Your task to perform on an android device: Clear all items from cart on walmart.com. Image 0: 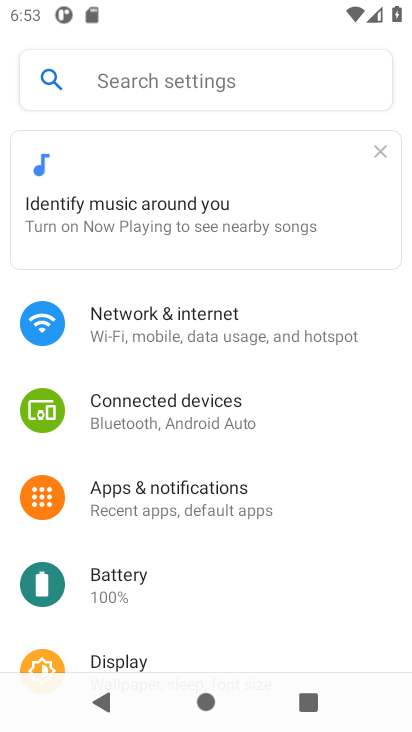
Step 0: press home button
Your task to perform on an android device: Clear all items from cart on walmart.com. Image 1: 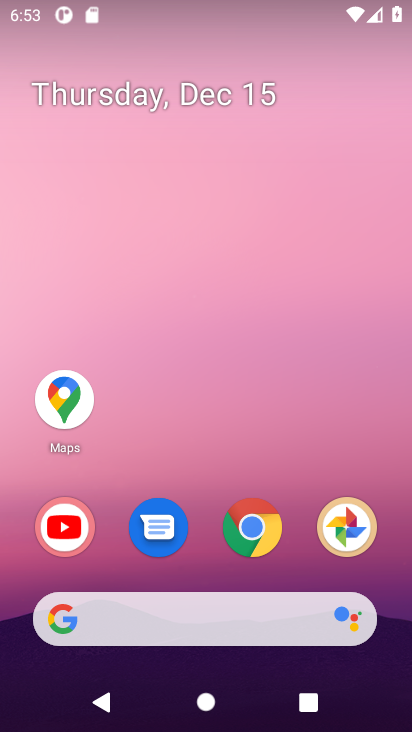
Step 1: click (258, 532)
Your task to perform on an android device: Clear all items from cart on walmart.com. Image 2: 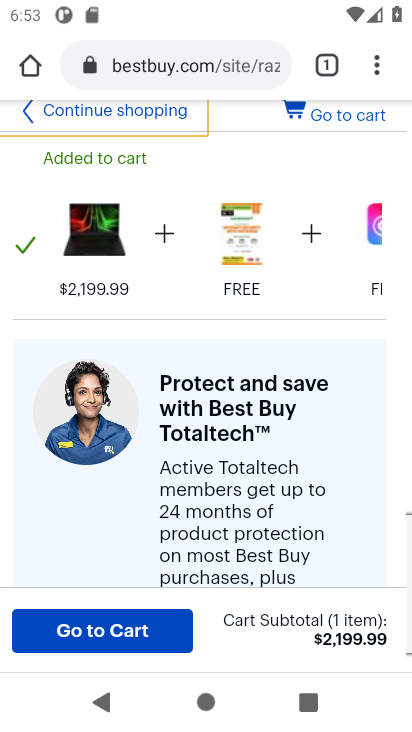
Step 2: click (116, 60)
Your task to perform on an android device: Clear all items from cart on walmart.com. Image 3: 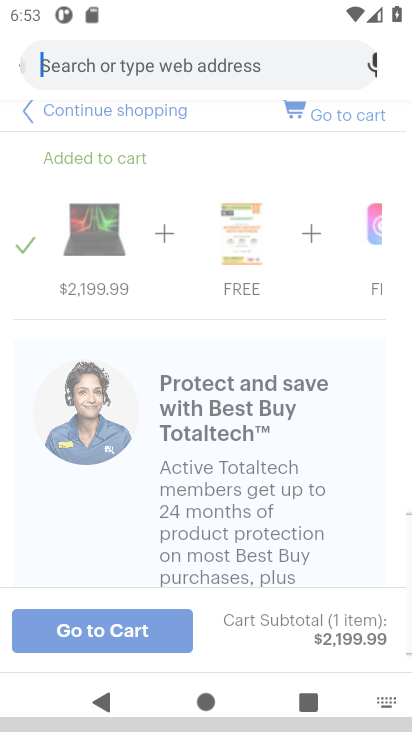
Step 3: click (116, 60)
Your task to perform on an android device: Clear all items from cart on walmart.com. Image 4: 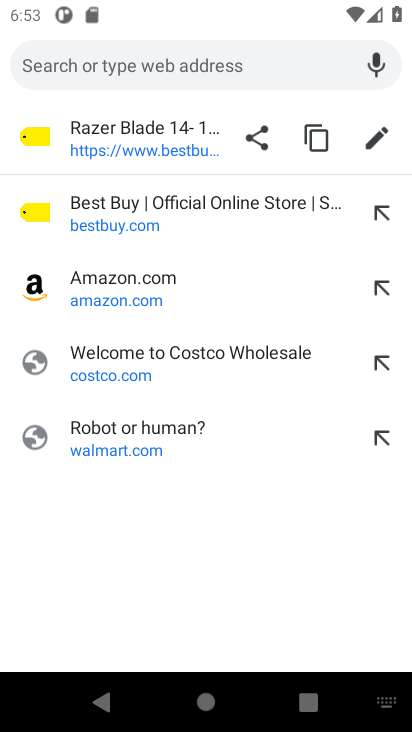
Step 4: type "walmart"
Your task to perform on an android device: Clear all items from cart on walmart.com. Image 5: 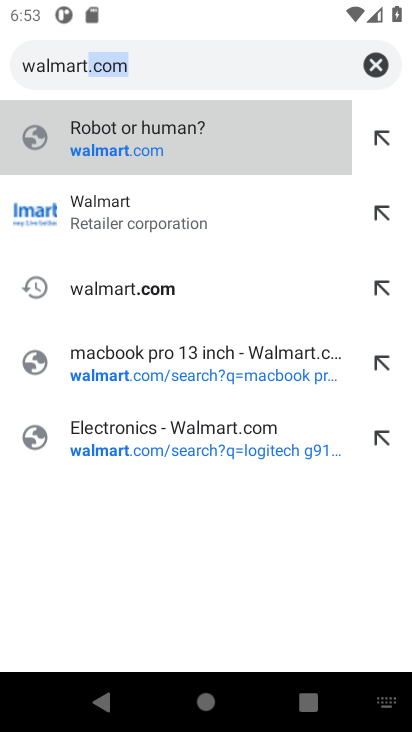
Step 5: click (83, 207)
Your task to perform on an android device: Clear all items from cart on walmart.com. Image 6: 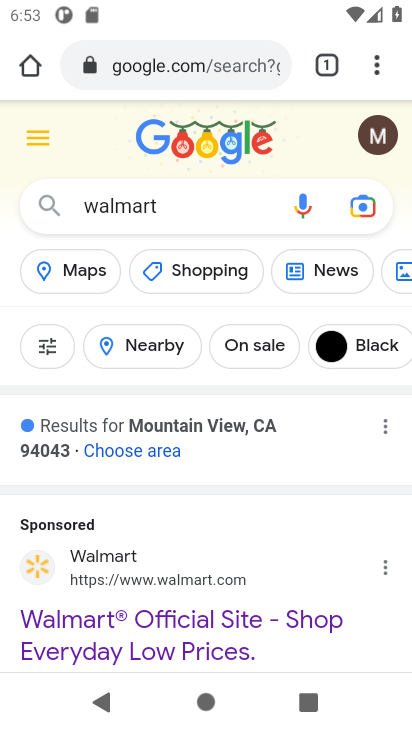
Step 6: click (79, 655)
Your task to perform on an android device: Clear all items from cart on walmart.com. Image 7: 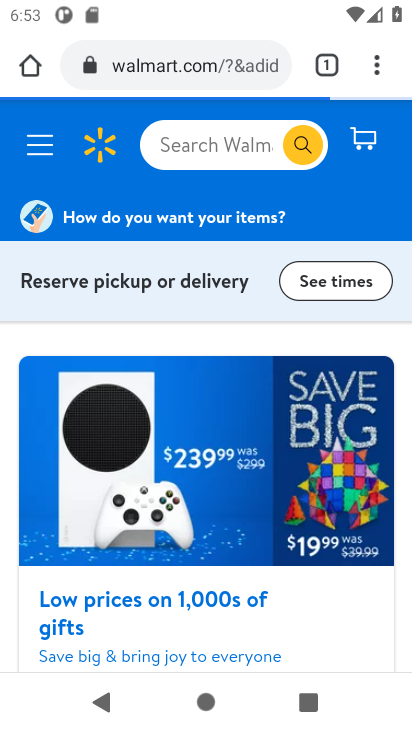
Step 7: click (190, 139)
Your task to perform on an android device: Clear all items from cart on walmart.com. Image 8: 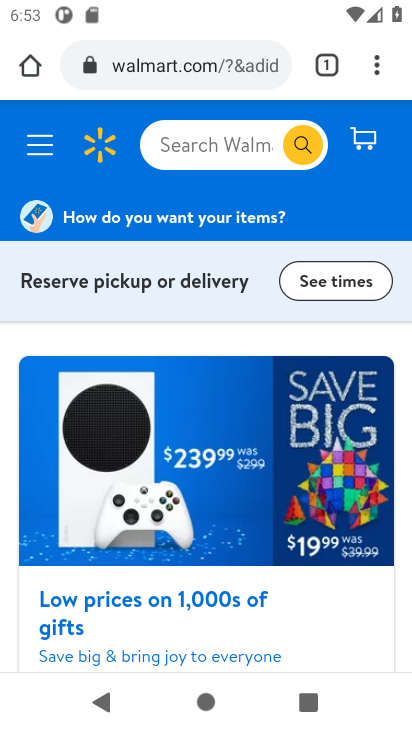
Step 8: click (355, 131)
Your task to perform on an android device: Clear all items from cart on walmart.com. Image 9: 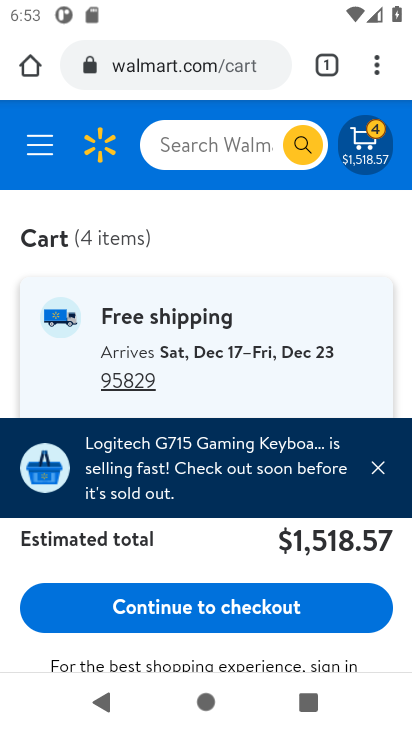
Step 9: click (373, 466)
Your task to perform on an android device: Clear all items from cart on walmart.com. Image 10: 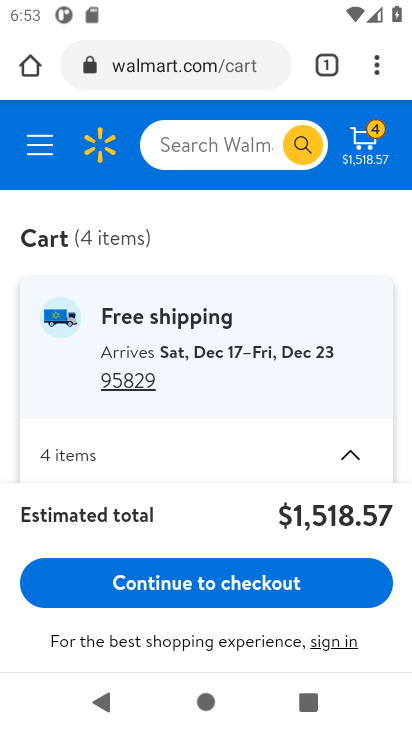
Step 10: drag from (79, 449) to (94, 268)
Your task to perform on an android device: Clear all items from cart on walmart.com. Image 11: 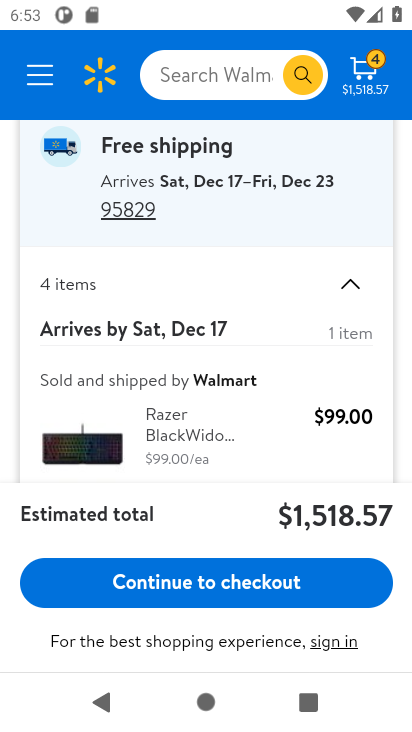
Step 11: drag from (277, 444) to (280, 233)
Your task to perform on an android device: Clear all items from cart on walmart.com. Image 12: 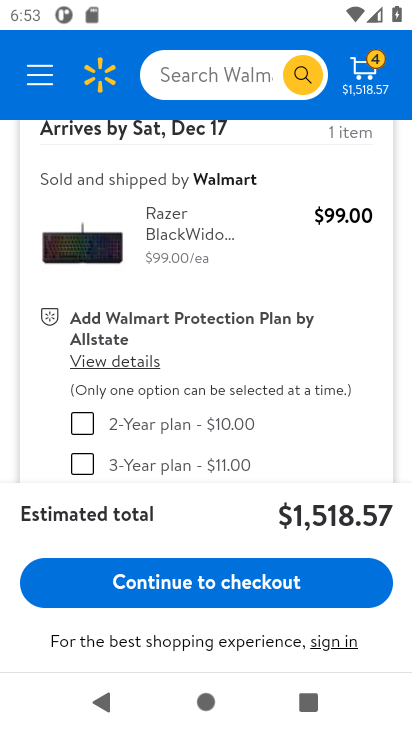
Step 12: drag from (223, 353) to (248, 175)
Your task to perform on an android device: Clear all items from cart on walmart.com. Image 13: 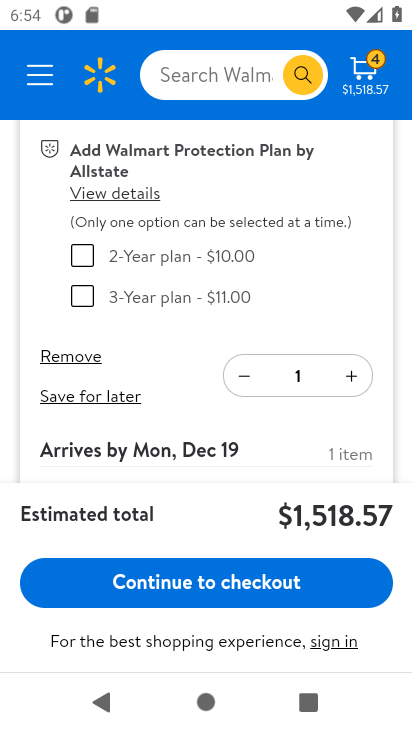
Step 13: click (84, 356)
Your task to perform on an android device: Clear all items from cart on walmart.com. Image 14: 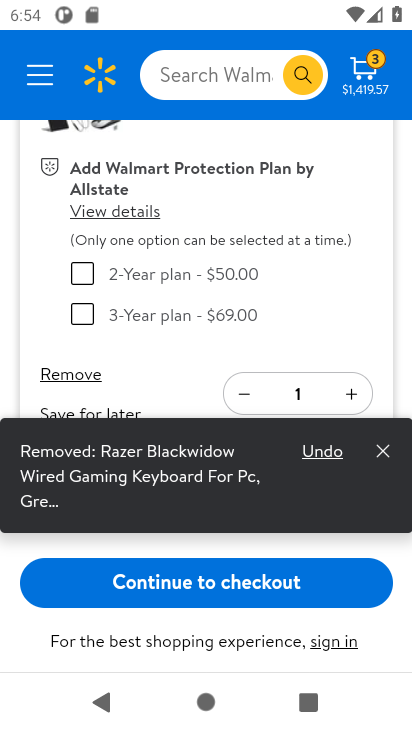
Step 14: drag from (180, 496) to (200, 361)
Your task to perform on an android device: Clear all items from cart on walmart.com. Image 15: 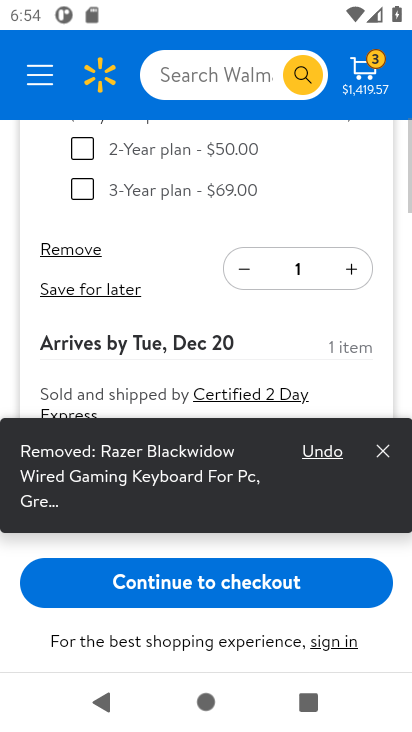
Step 15: drag from (200, 361) to (211, 199)
Your task to perform on an android device: Clear all items from cart on walmart.com. Image 16: 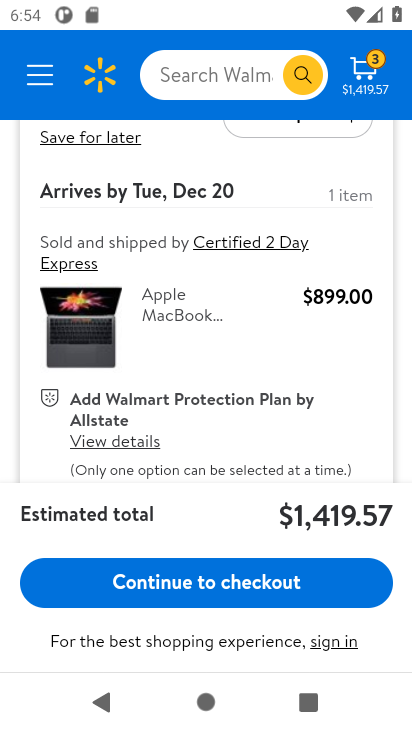
Step 16: drag from (162, 182) to (160, 315)
Your task to perform on an android device: Clear all items from cart on walmart.com. Image 17: 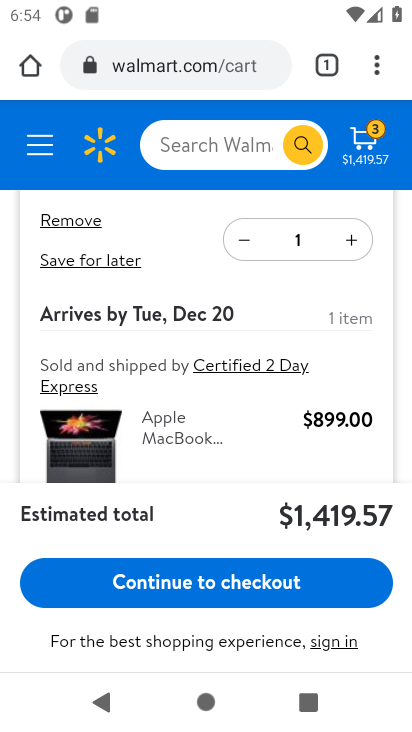
Step 17: click (91, 224)
Your task to perform on an android device: Clear all items from cart on walmart.com. Image 18: 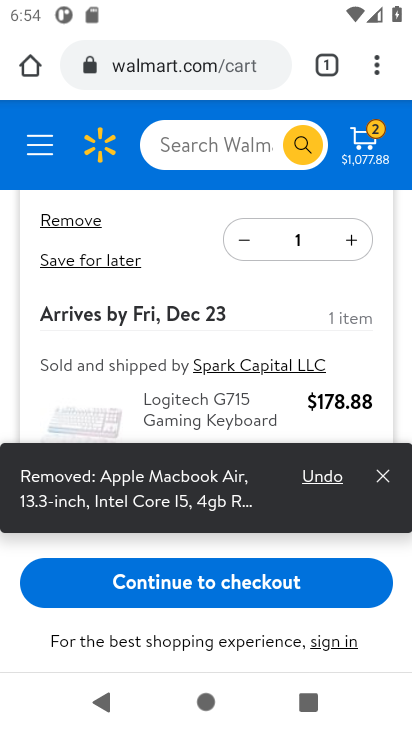
Step 18: click (389, 479)
Your task to perform on an android device: Clear all items from cart on walmart.com. Image 19: 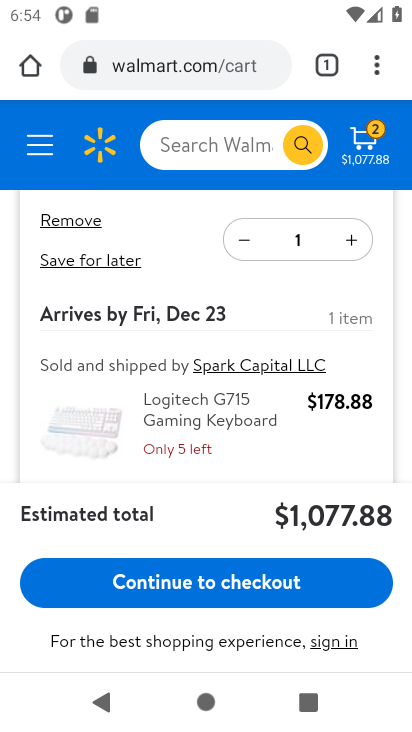
Step 19: drag from (164, 471) to (162, 332)
Your task to perform on an android device: Clear all items from cart on walmart.com. Image 20: 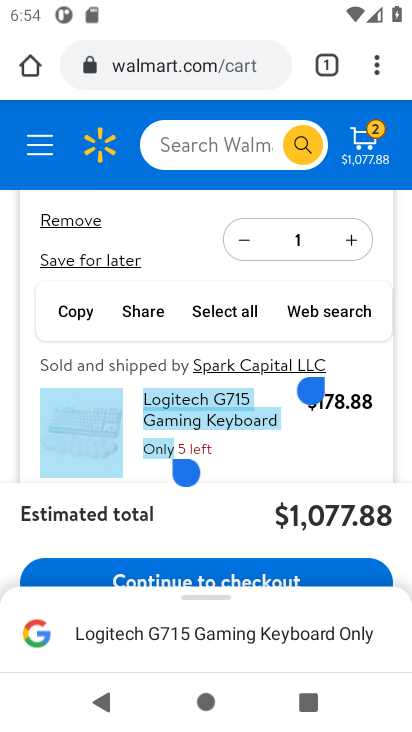
Step 20: click (60, 228)
Your task to perform on an android device: Clear all items from cart on walmart.com. Image 21: 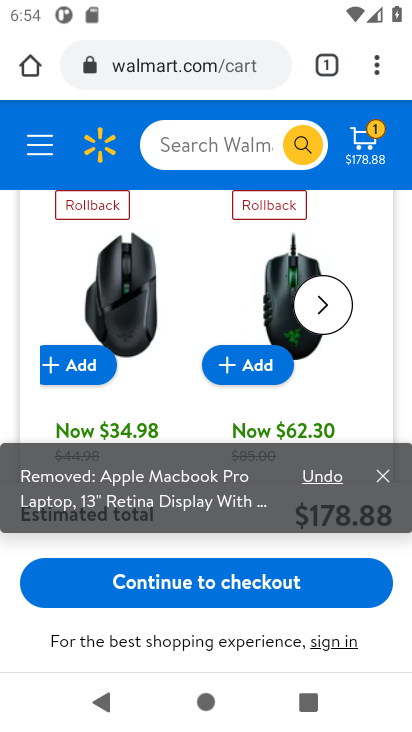
Step 21: click (381, 483)
Your task to perform on an android device: Clear all items from cart on walmart.com. Image 22: 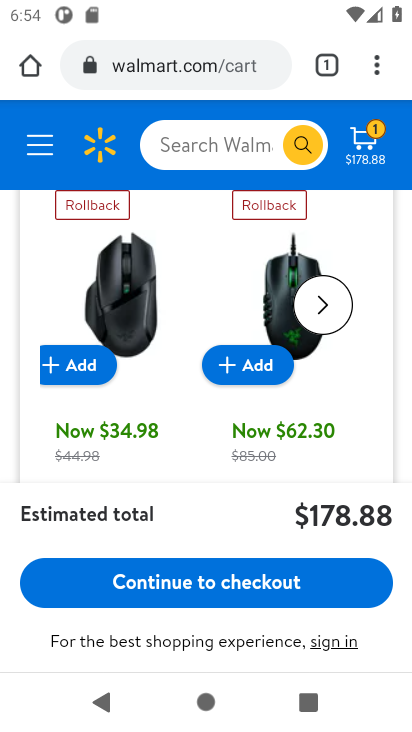
Step 22: drag from (364, 441) to (346, 281)
Your task to perform on an android device: Clear all items from cart on walmart.com. Image 23: 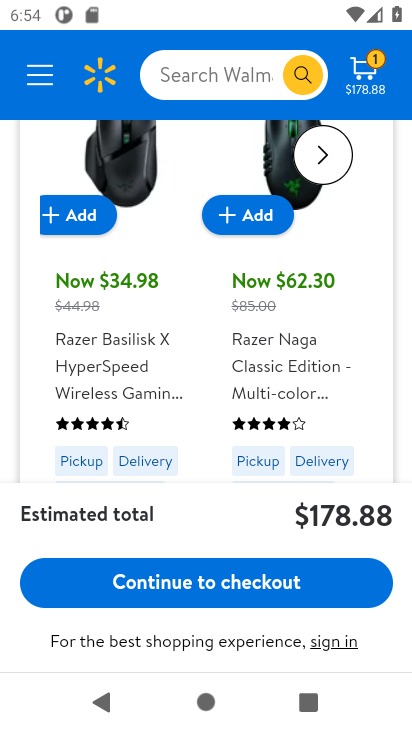
Step 23: drag from (193, 261) to (205, 653)
Your task to perform on an android device: Clear all items from cart on walmart.com. Image 24: 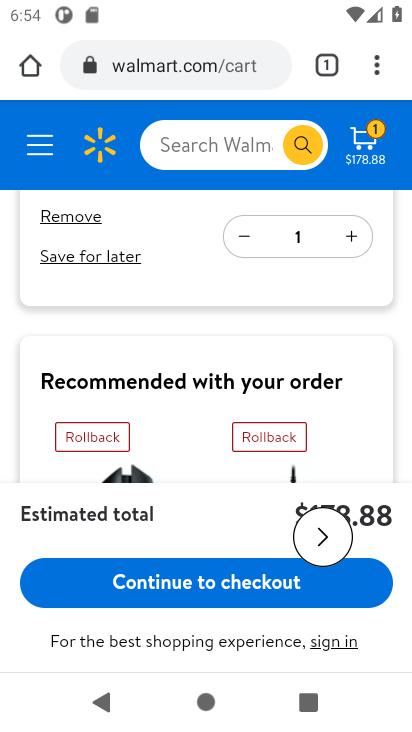
Step 24: click (72, 224)
Your task to perform on an android device: Clear all items from cart on walmart.com. Image 25: 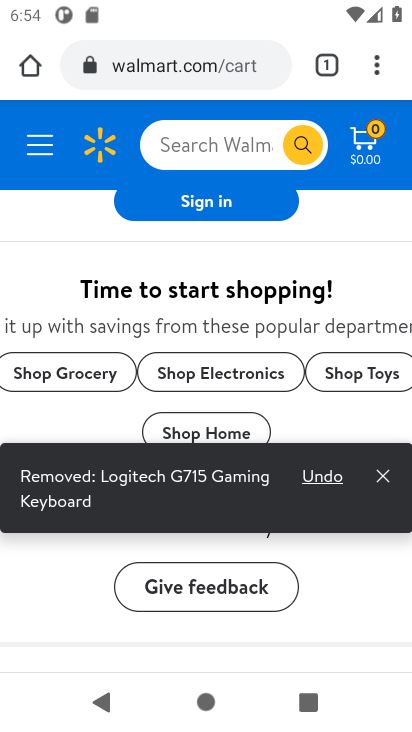
Step 25: click (393, 473)
Your task to perform on an android device: Clear all items from cart on walmart.com. Image 26: 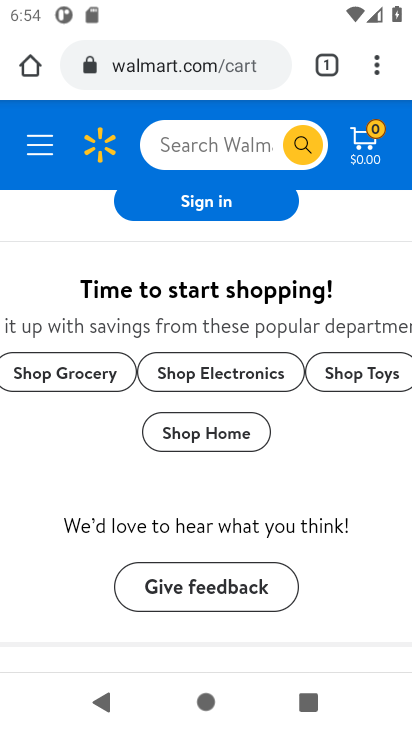
Step 26: task complete